Your task to perform on an android device: Open CNN.com Image 0: 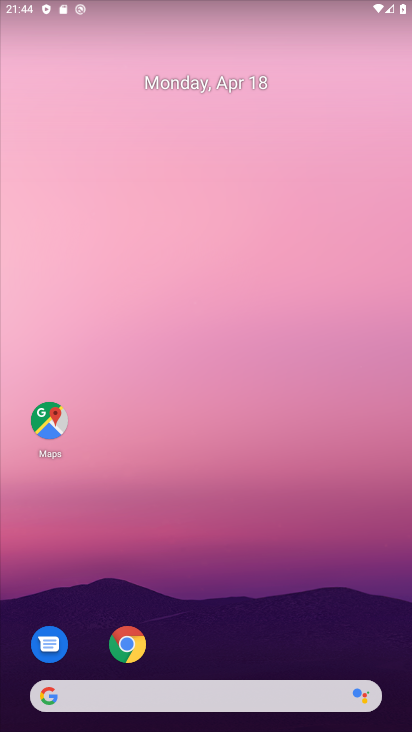
Step 0: click (126, 639)
Your task to perform on an android device: Open CNN.com Image 1: 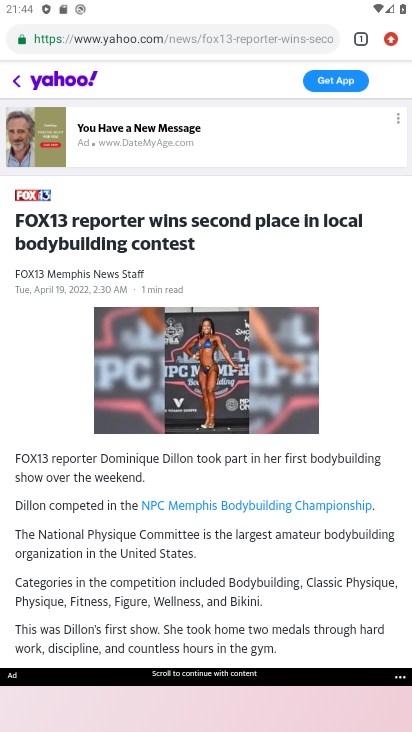
Step 1: click (265, 35)
Your task to perform on an android device: Open CNN.com Image 2: 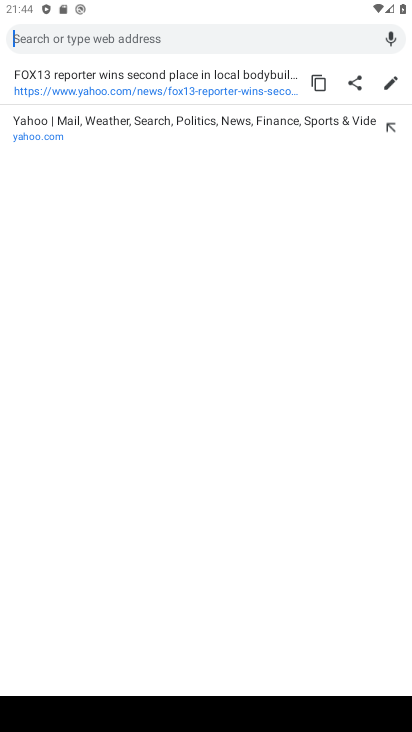
Step 2: type "CNN.com"
Your task to perform on an android device: Open CNN.com Image 3: 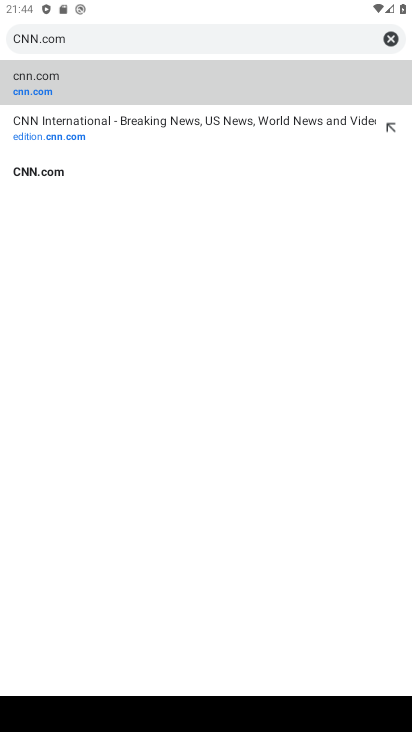
Step 3: click (124, 80)
Your task to perform on an android device: Open CNN.com Image 4: 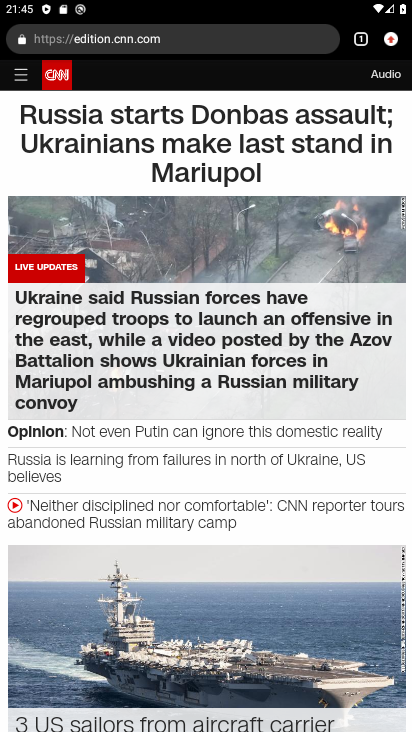
Step 4: task complete